Your task to perform on an android device: make emails show in primary in the gmail app Image 0: 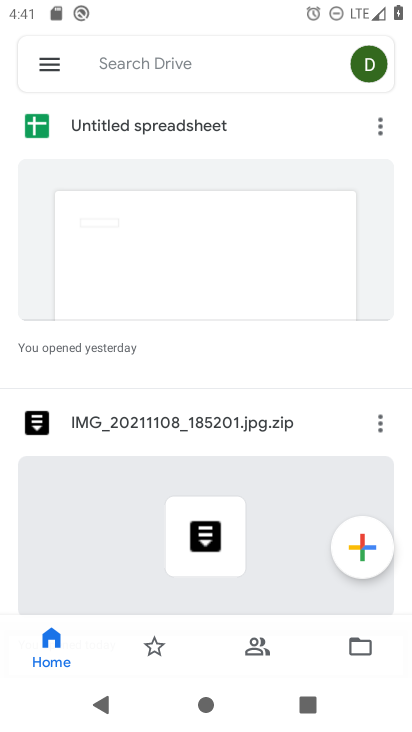
Step 0: press home button
Your task to perform on an android device: make emails show in primary in the gmail app Image 1: 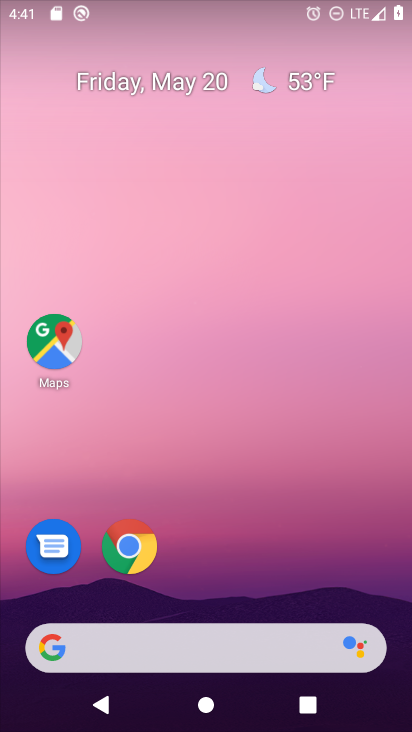
Step 1: drag from (266, 569) to (295, 136)
Your task to perform on an android device: make emails show in primary in the gmail app Image 2: 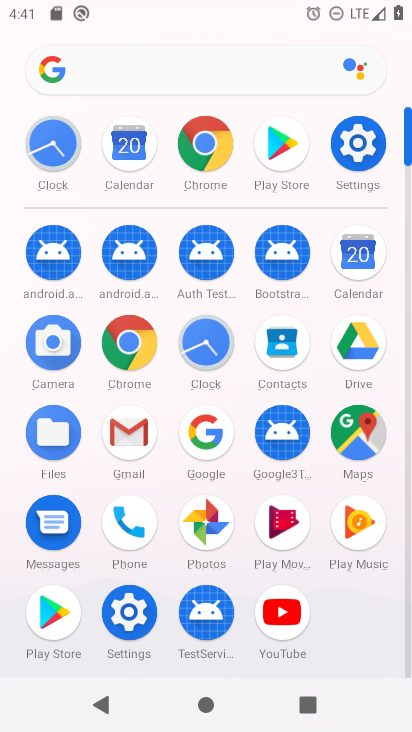
Step 2: click (135, 431)
Your task to perform on an android device: make emails show in primary in the gmail app Image 3: 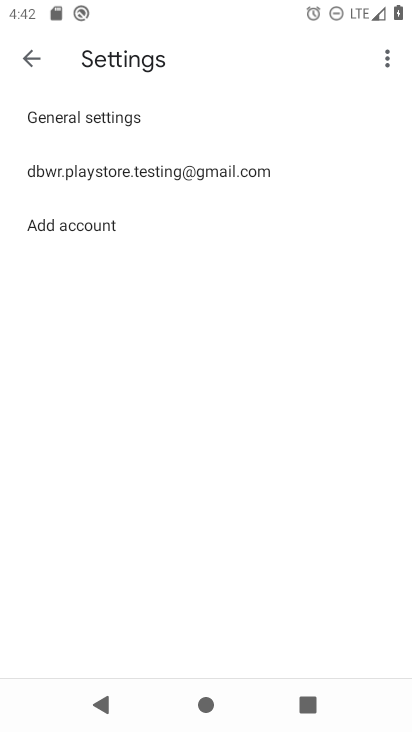
Step 3: click (92, 181)
Your task to perform on an android device: make emails show in primary in the gmail app Image 4: 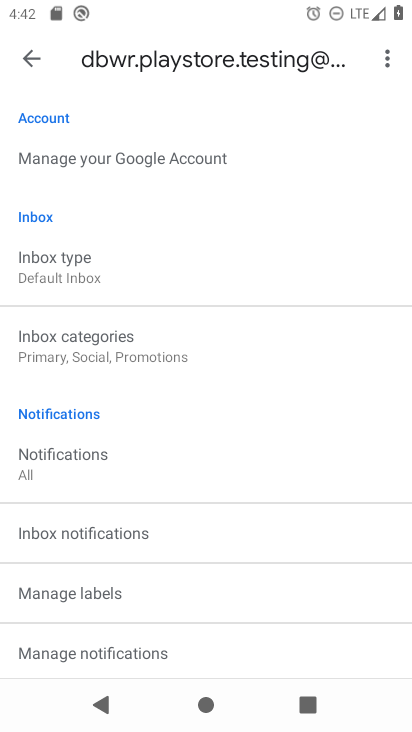
Step 4: drag from (156, 598) to (233, 358)
Your task to perform on an android device: make emails show in primary in the gmail app Image 5: 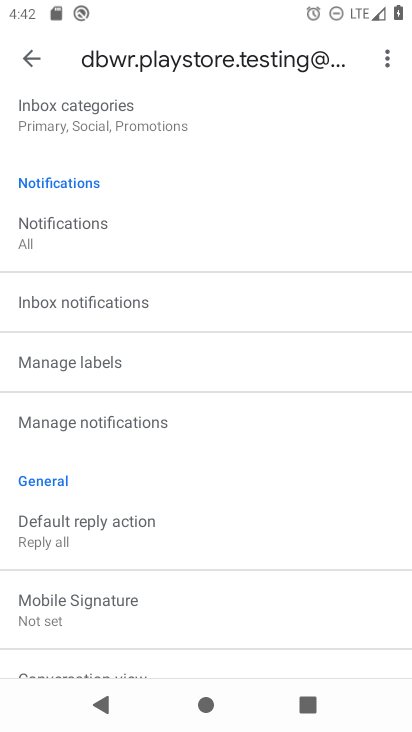
Step 5: drag from (149, 522) to (234, 262)
Your task to perform on an android device: make emails show in primary in the gmail app Image 6: 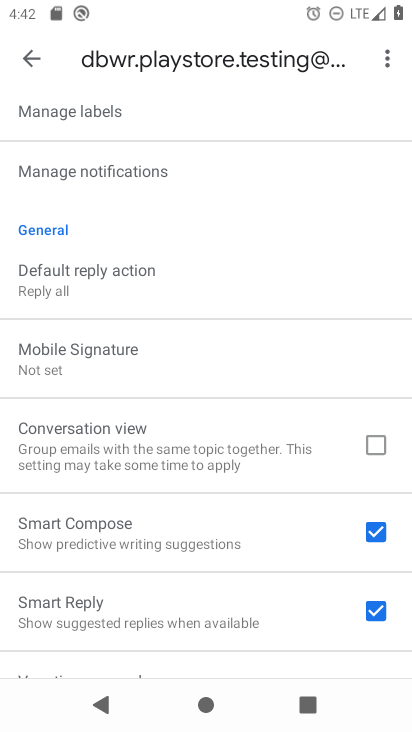
Step 6: drag from (190, 605) to (221, 307)
Your task to perform on an android device: make emails show in primary in the gmail app Image 7: 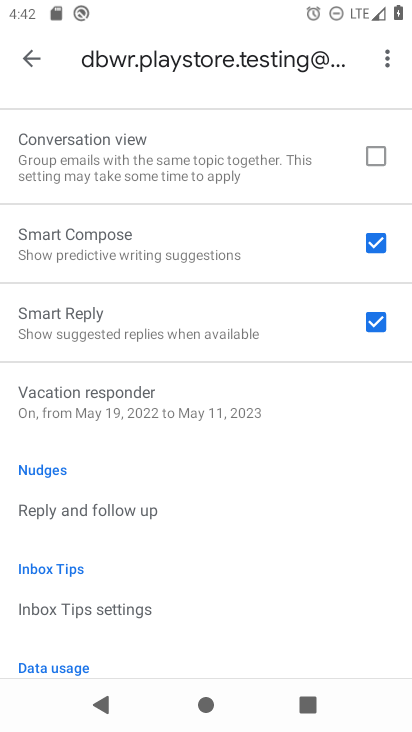
Step 7: drag from (215, 312) to (204, 728)
Your task to perform on an android device: make emails show in primary in the gmail app Image 8: 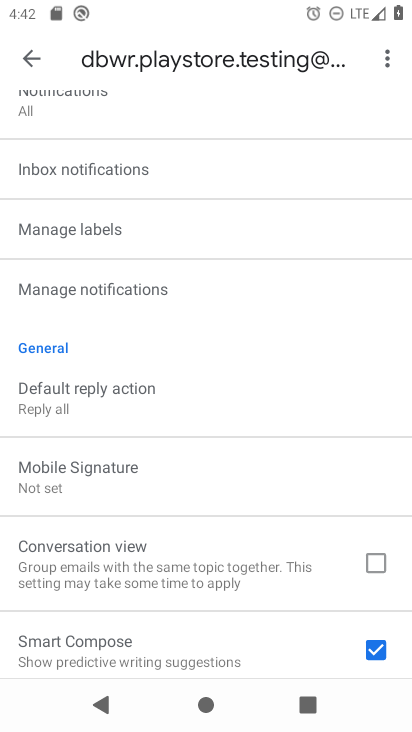
Step 8: drag from (195, 364) to (196, 675)
Your task to perform on an android device: make emails show in primary in the gmail app Image 9: 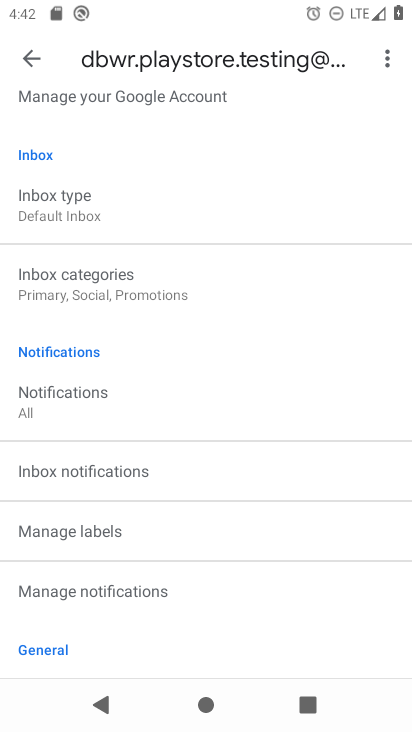
Step 9: click (124, 293)
Your task to perform on an android device: make emails show in primary in the gmail app Image 10: 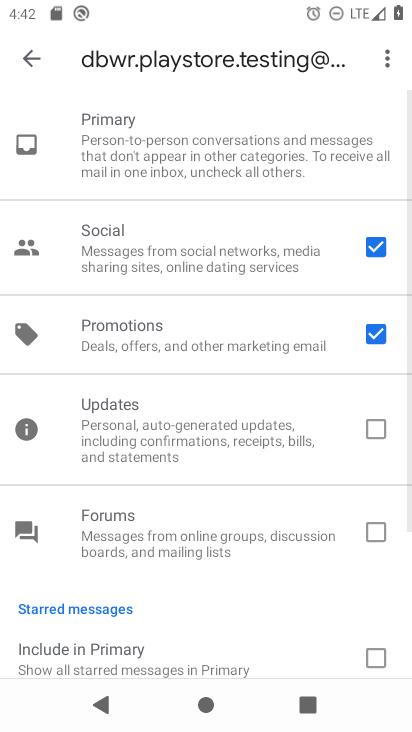
Step 10: task complete